Your task to perform on an android device: Search for logitech g502 on walmart, select the first entry, add it to the cart, then select checkout. Image 0: 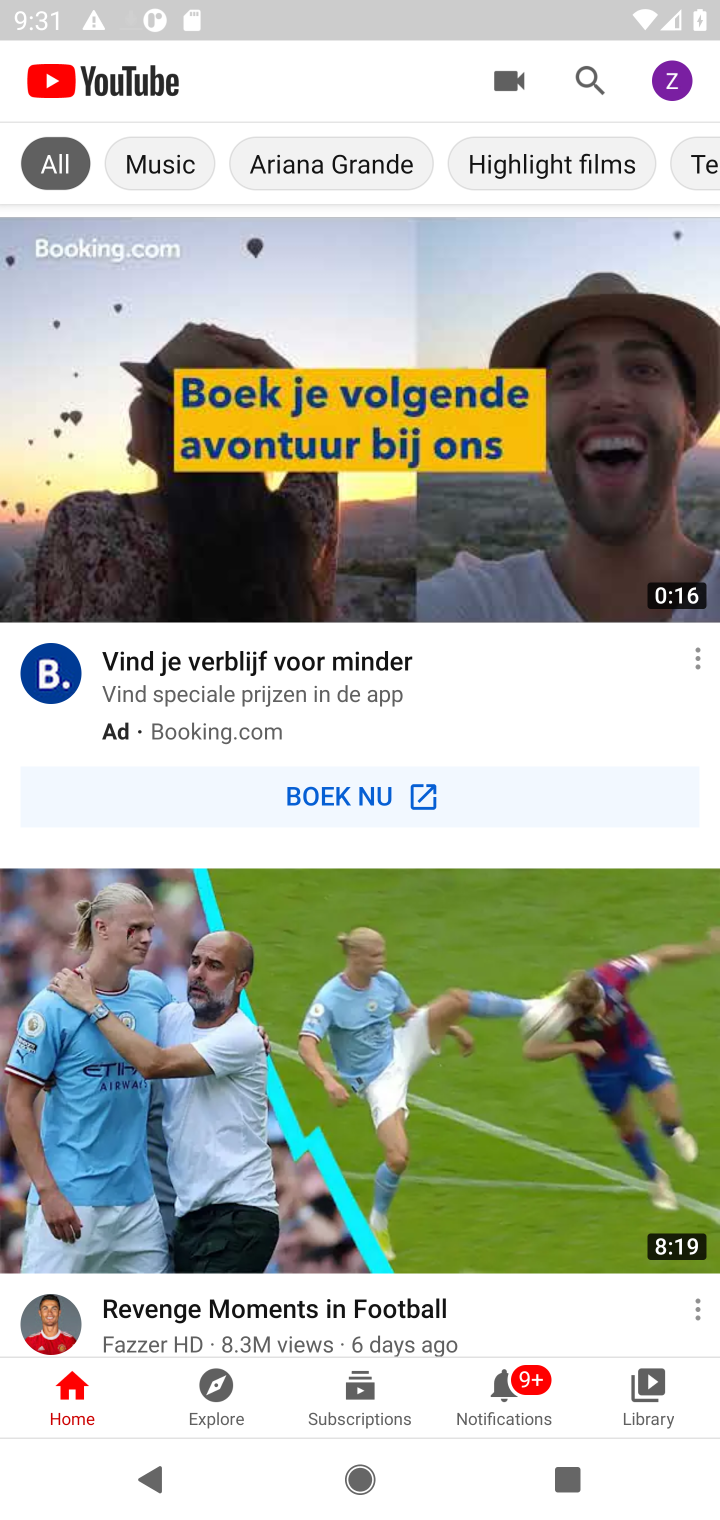
Step 0: press home button
Your task to perform on an android device: Search for logitech g502 on walmart, select the first entry, add it to the cart, then select checkout. Image 1: 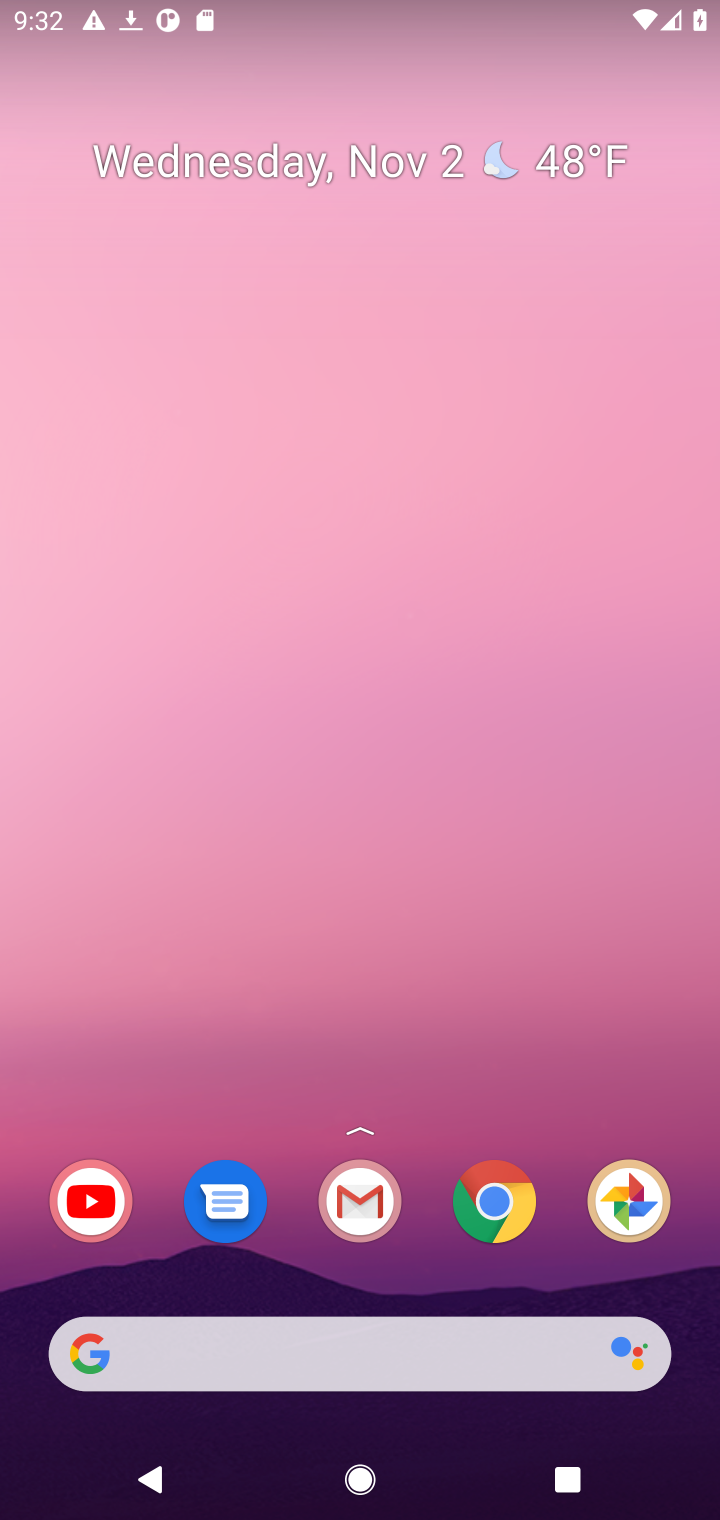
Step 1: drag from (440, 1272) to (415, 335)
Your task to perform on an android device: Search for logitech g502 on walmart, select the first entry, add it to the cart, then select checkout. Image 2: 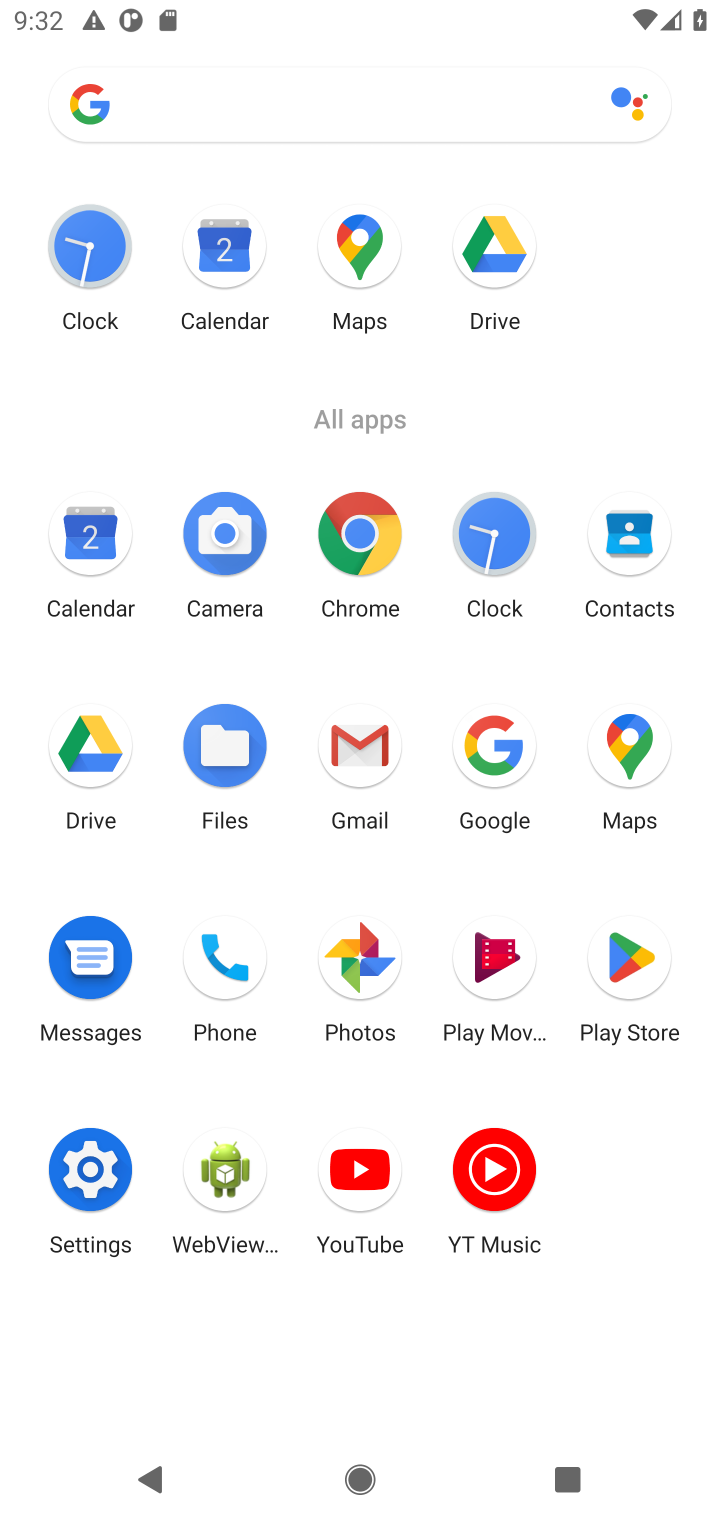
Step 2: click (372, 530)
Your task to perform on an android device: Search for logitech g502 on walmart, select the first entry, add it to the cart, then select checkout. Image 3: 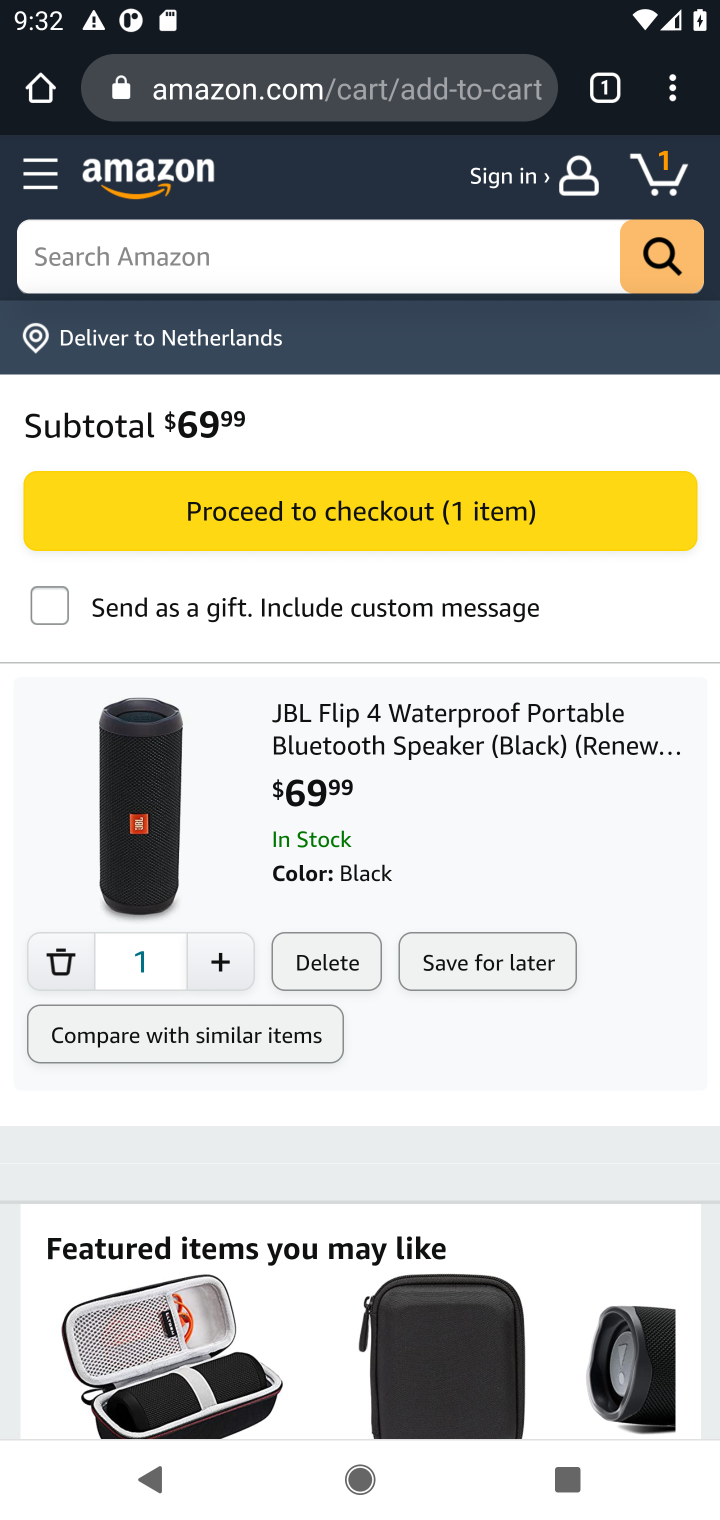
Step 3: click (346, 260)
Your task to perform on an android device: Search for logitech g502 on walmart, select the first entry, add it to the cart, then select checkout. Image 4: 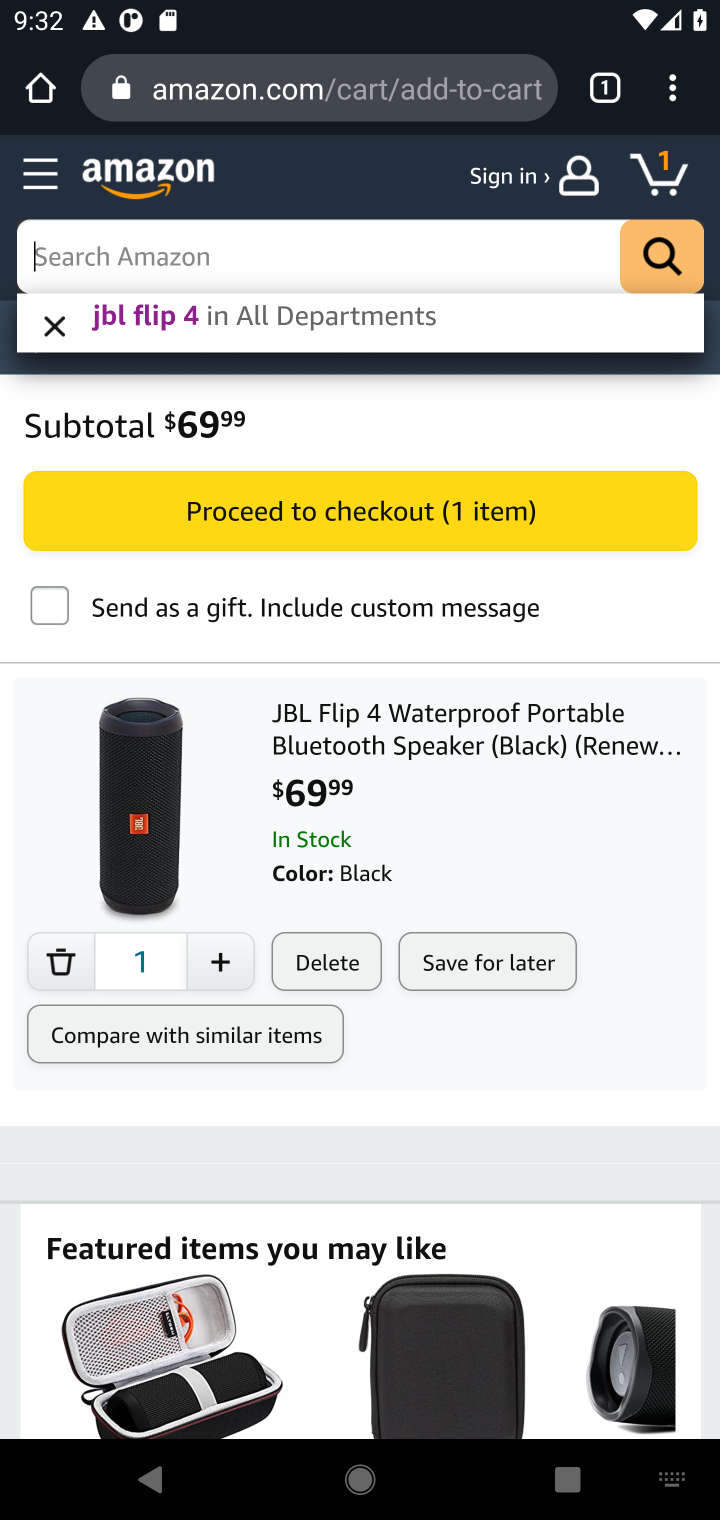
Step 4: type "walmart.com"
Your task to perform on an android device: Search for logitech g502 on walmart, select the first entry, add it to the cart, then select checkout. Image 5: 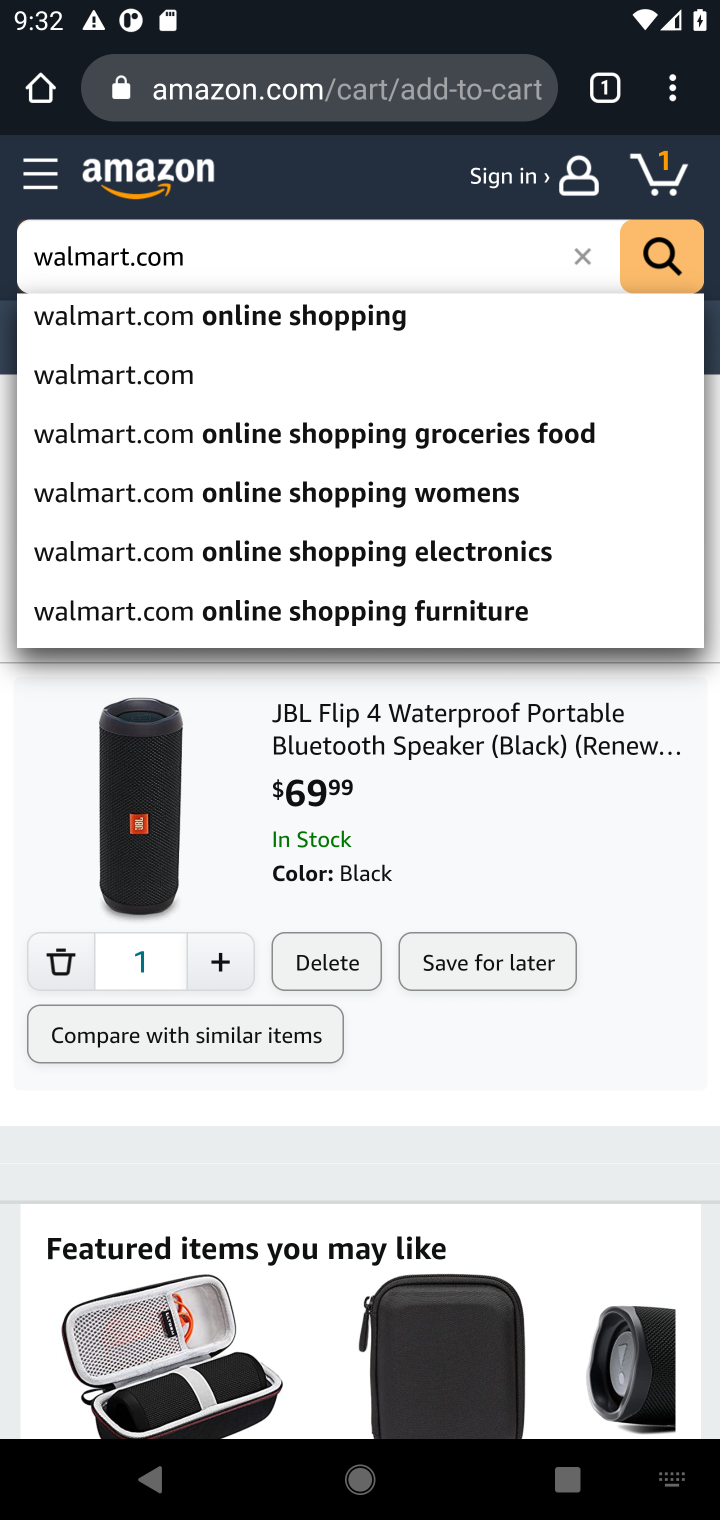
Step 5: click (473, 81)
Your task to perform on an android device: Search for logitech g502 on walmart, select the first entry, add it to the cart, then select checkout. Image 6: 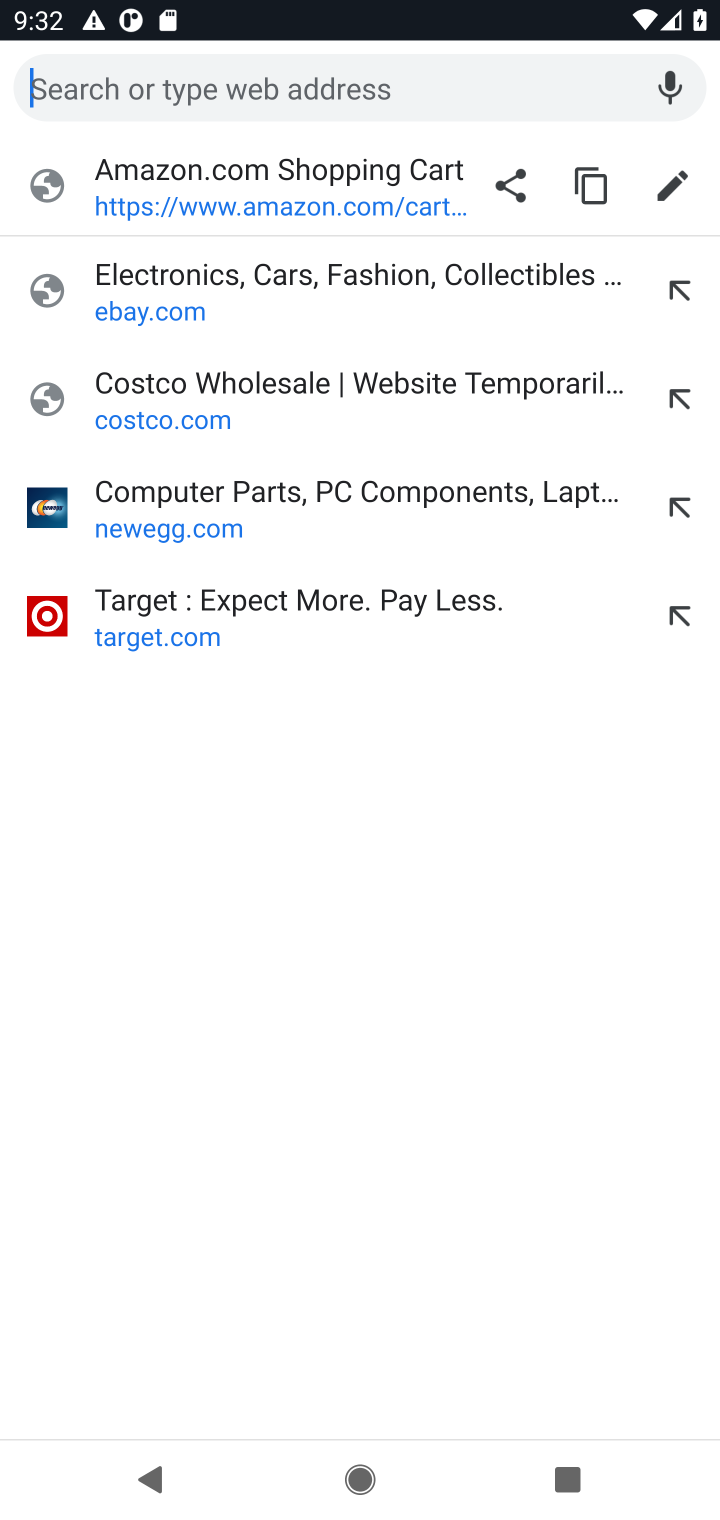
Step 6: type "walmart.com"
Your task to perform on an android device: Search for logitech g502 on walmart, select the first entry, add it to the cart, then select checkout. Image 7: 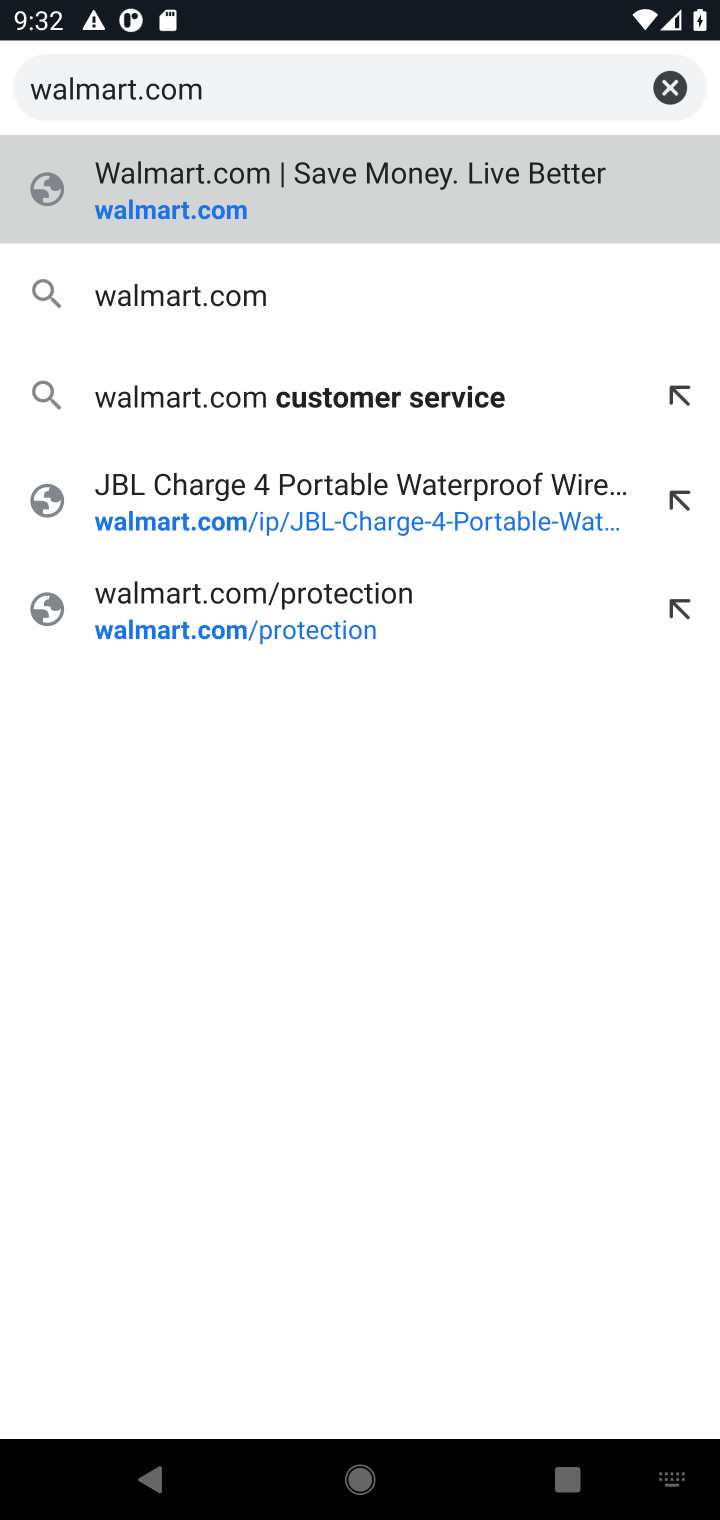
Step 7: press enter
Your task to perform on an android device: Search for logitech g502 on walmart, select the first entry, add it to the cart, then select checkout. Image 8: 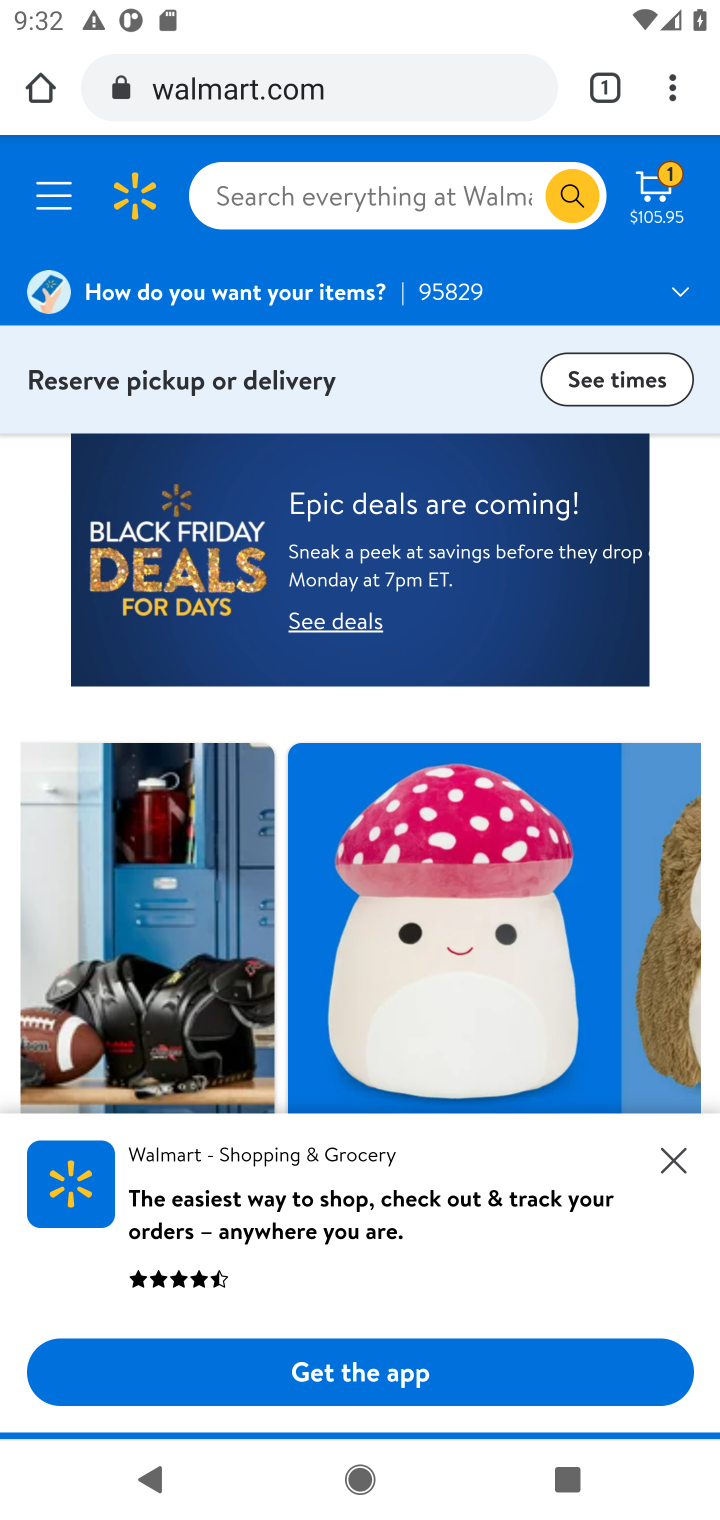
Step 8: click (408, 204)
Your task to perform on an android device: Search for logitech g502 on walmart, select the first entry, add it to the cart, then select checkout. Image 9: 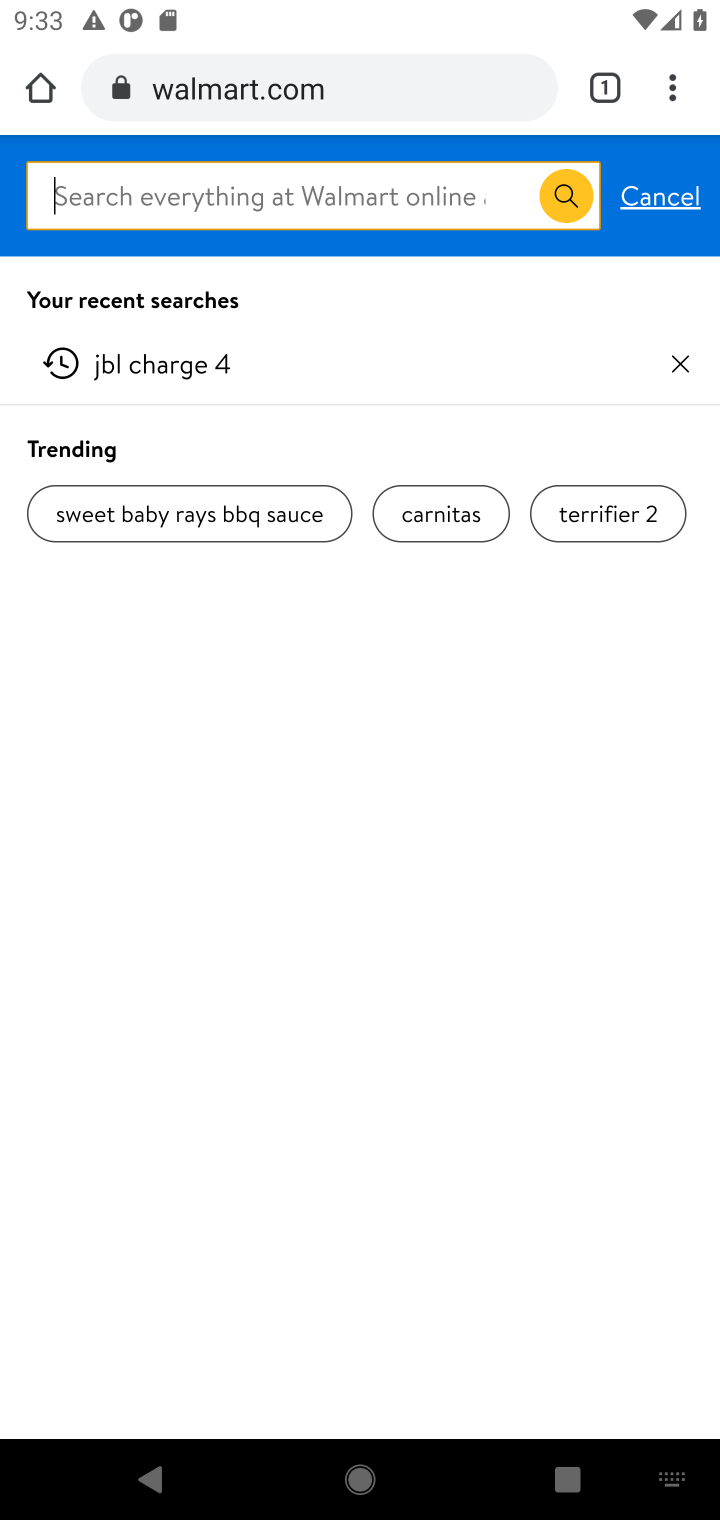
Step 9: type "logitech g502"
Your task to perform on an android device: Search for logitech g502 on walmart, select the first entry, add it to the cart, then select checkout. Image 10: 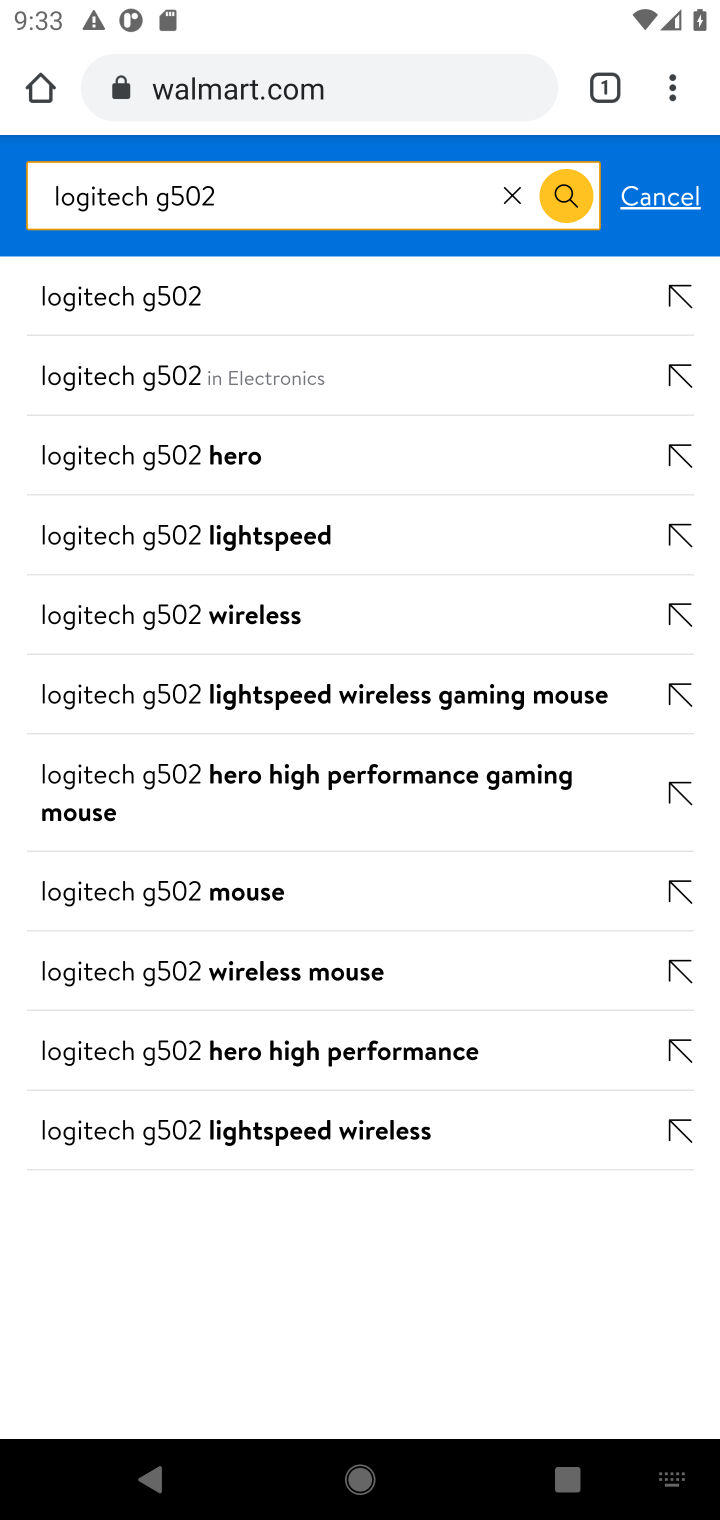
Step 10: press enter
Your task to perform on an android device: Search for logitech g502 on walmart, select the first entry, add it to the cart, then select checkout. Image 11: 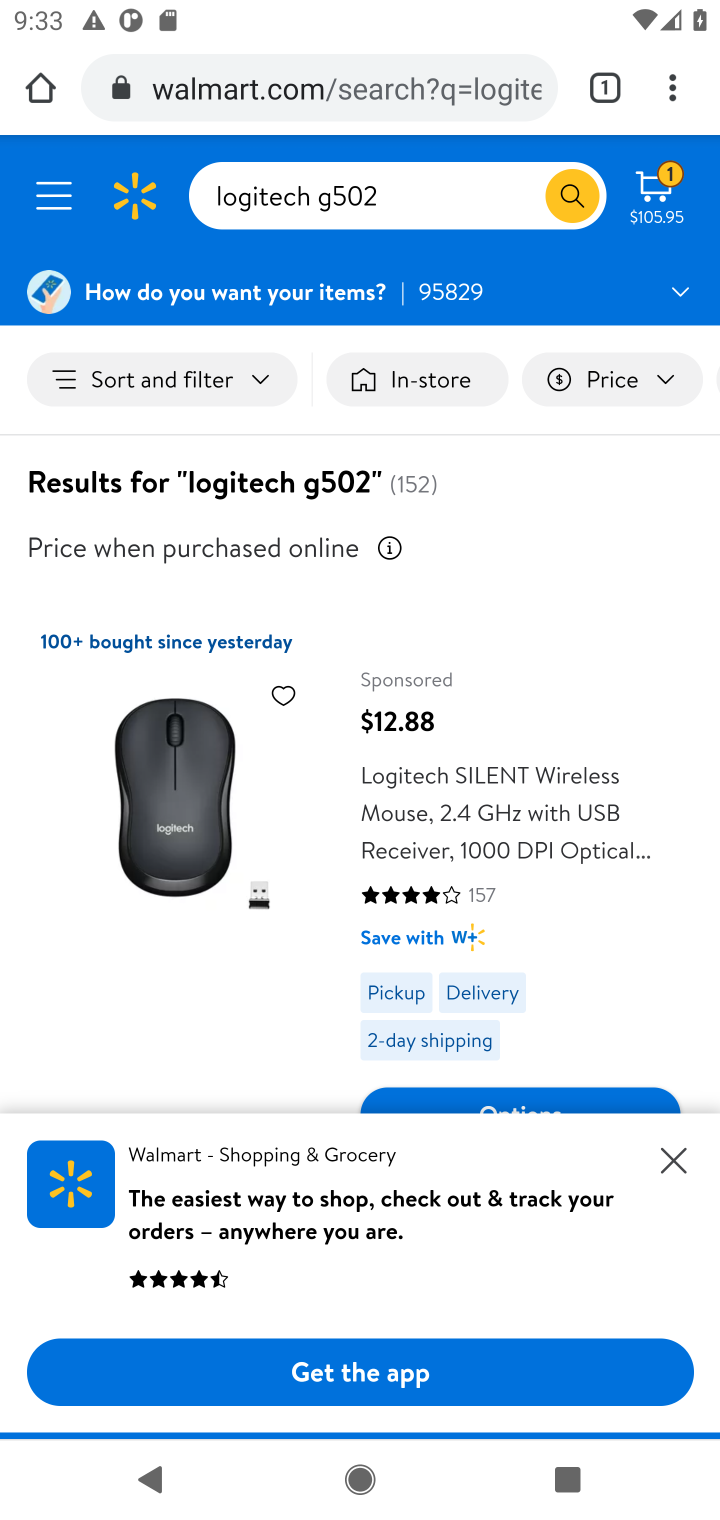
Step 11: drag from (444, 999) to (425, 244)
Your task to perform on an android device: Search for logitech g502 on walmart, select the first entry, add it to the cart, then select checkout. Image 12: 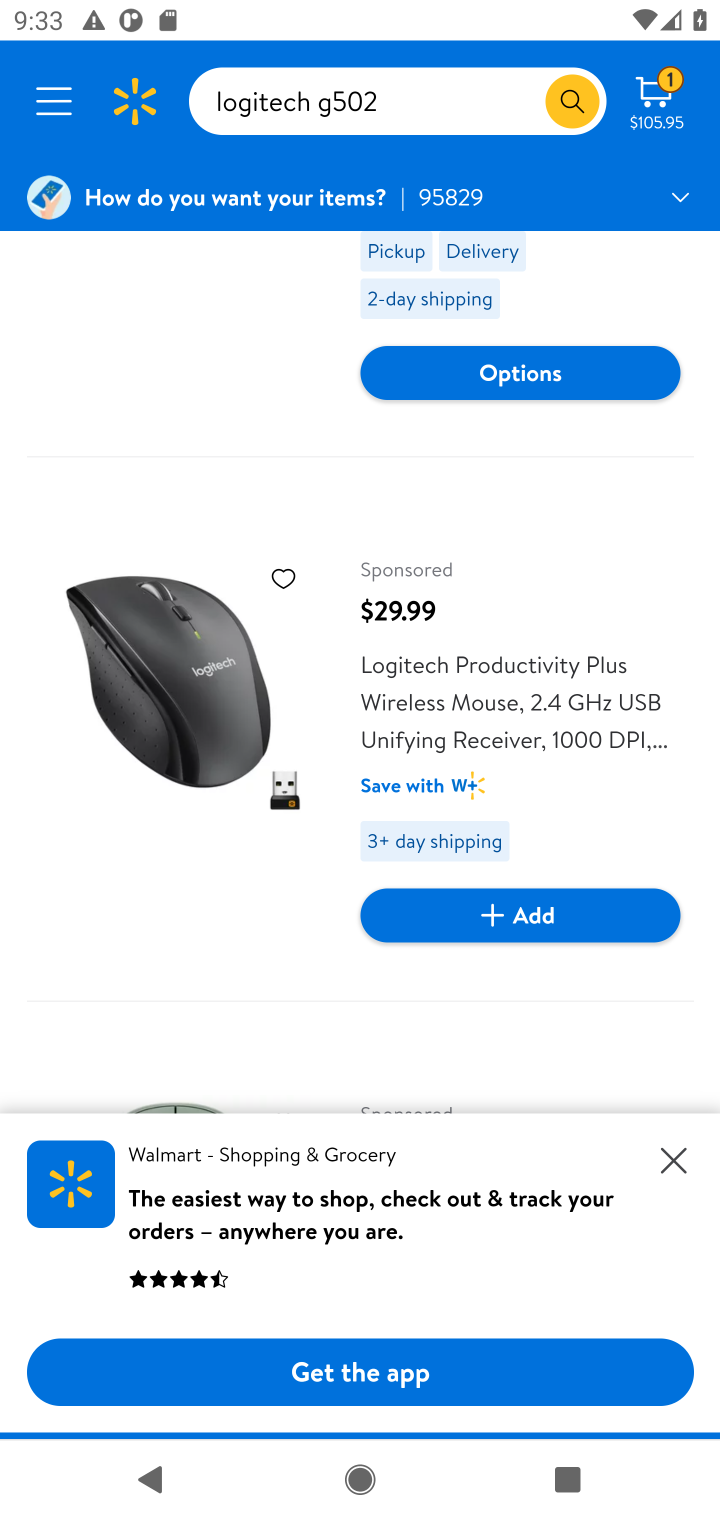
Step 12: drag from (449, 1024) to (359, 429)
Your task to perform on an android device: Search for logitech g502 on walmart, select the first entry, add it to the cart, then select checkout. Image 13: 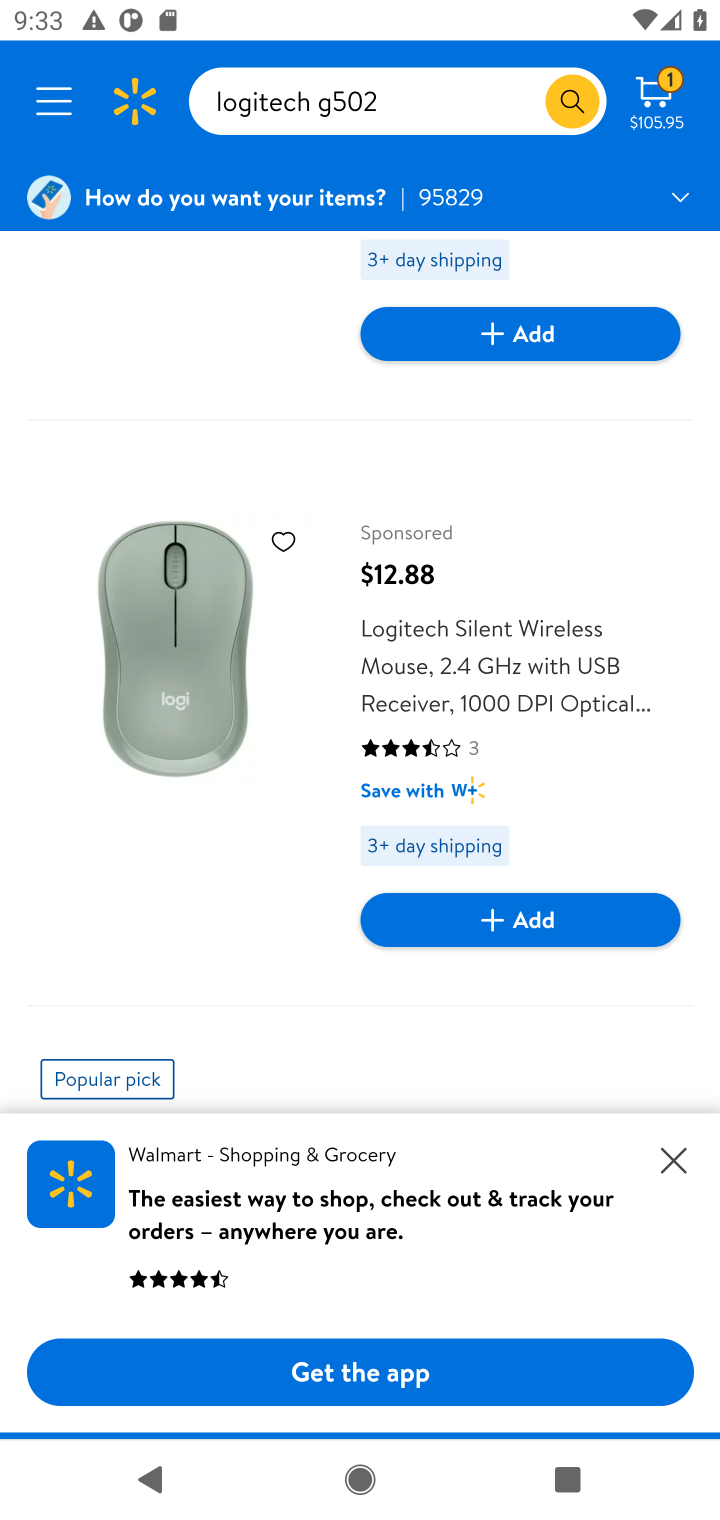
Step 13: drag from (440, 1039) to (499, 430)
Your task to perform on an android device: Search for logitech g502 on walmart, select the first entry, add it to the cart, then select checkout. Image 14: 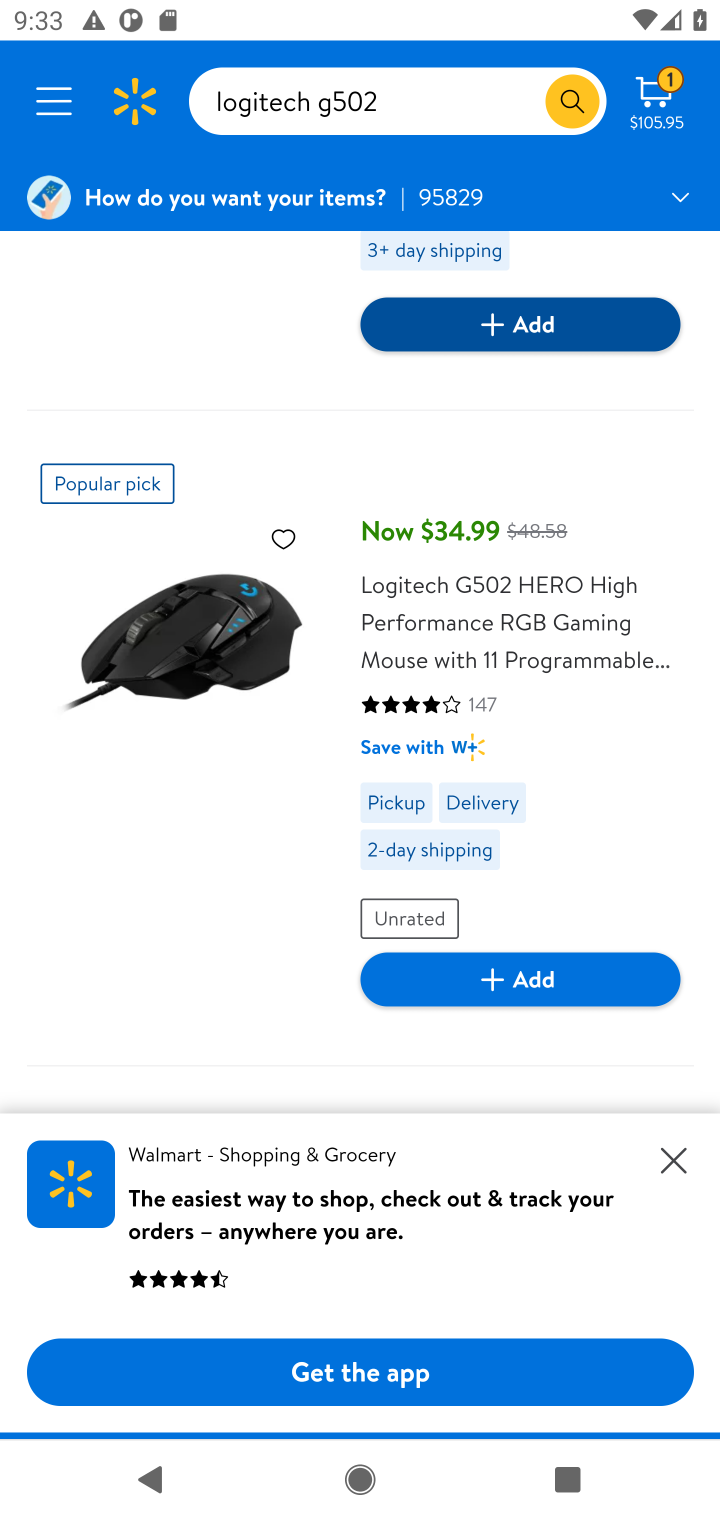
Step 14: click (550, 975)
Your task to perform on an android device: Search for logitech g502 on walmart, select the first entry, add it to the cart, then select checkout. Image 15: 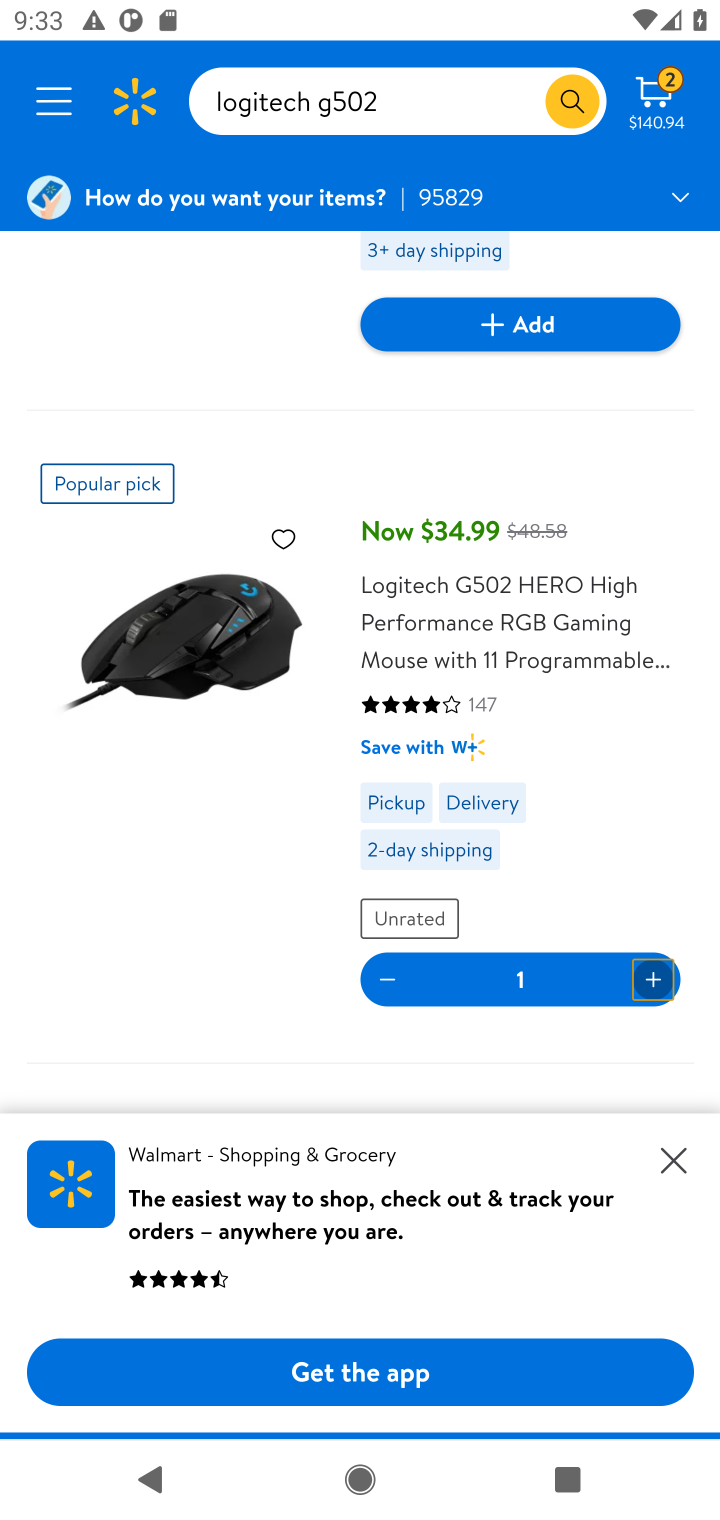
Step 15: click (439, 634)
Your task to perform on an android device: Search for logitech g502 on walmart, select the first entry, add it to the cart, then select checkout. Image 16: 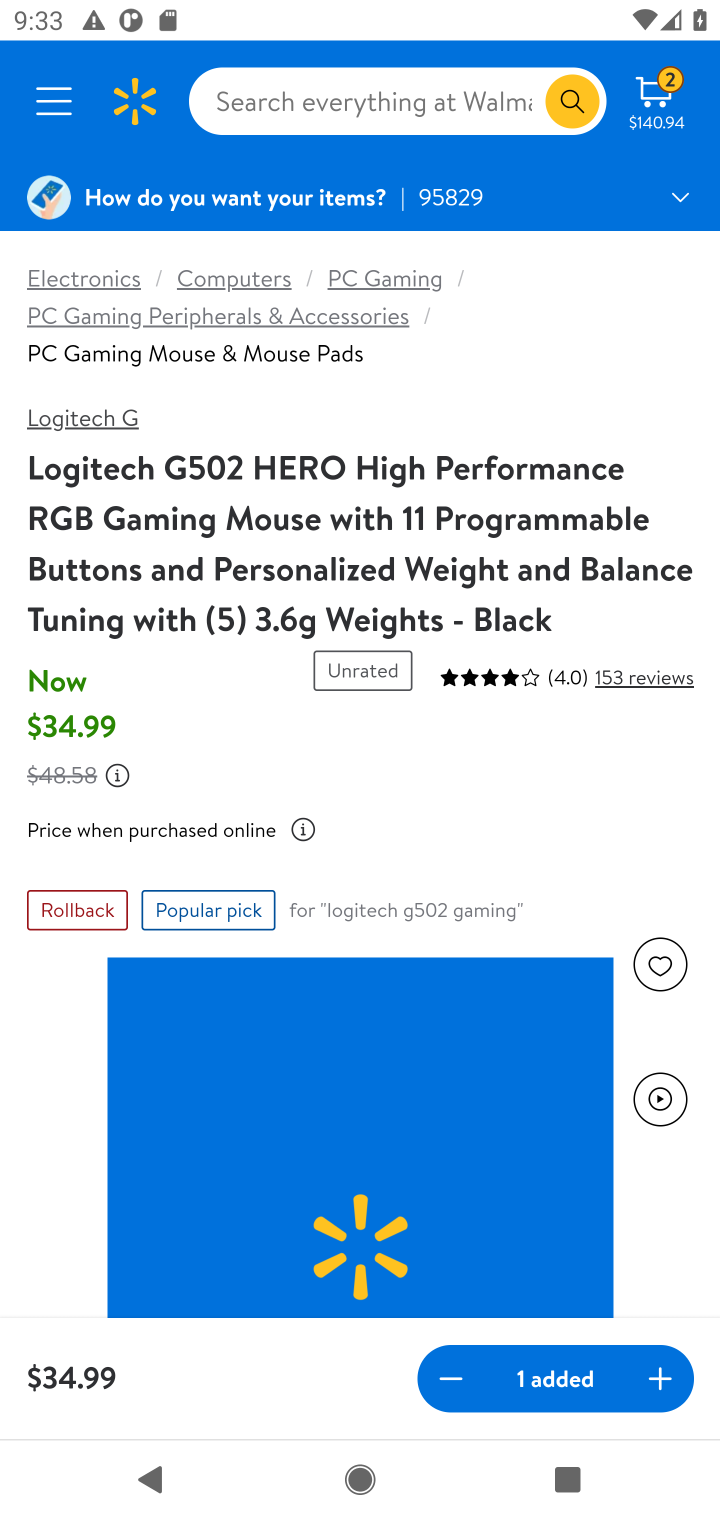
Step 16: click (667, 94)
Your task to perform on an android device: Search for logitech g502 on walmart, select the first entry, add it to the cart, then select checkout. Image 17: 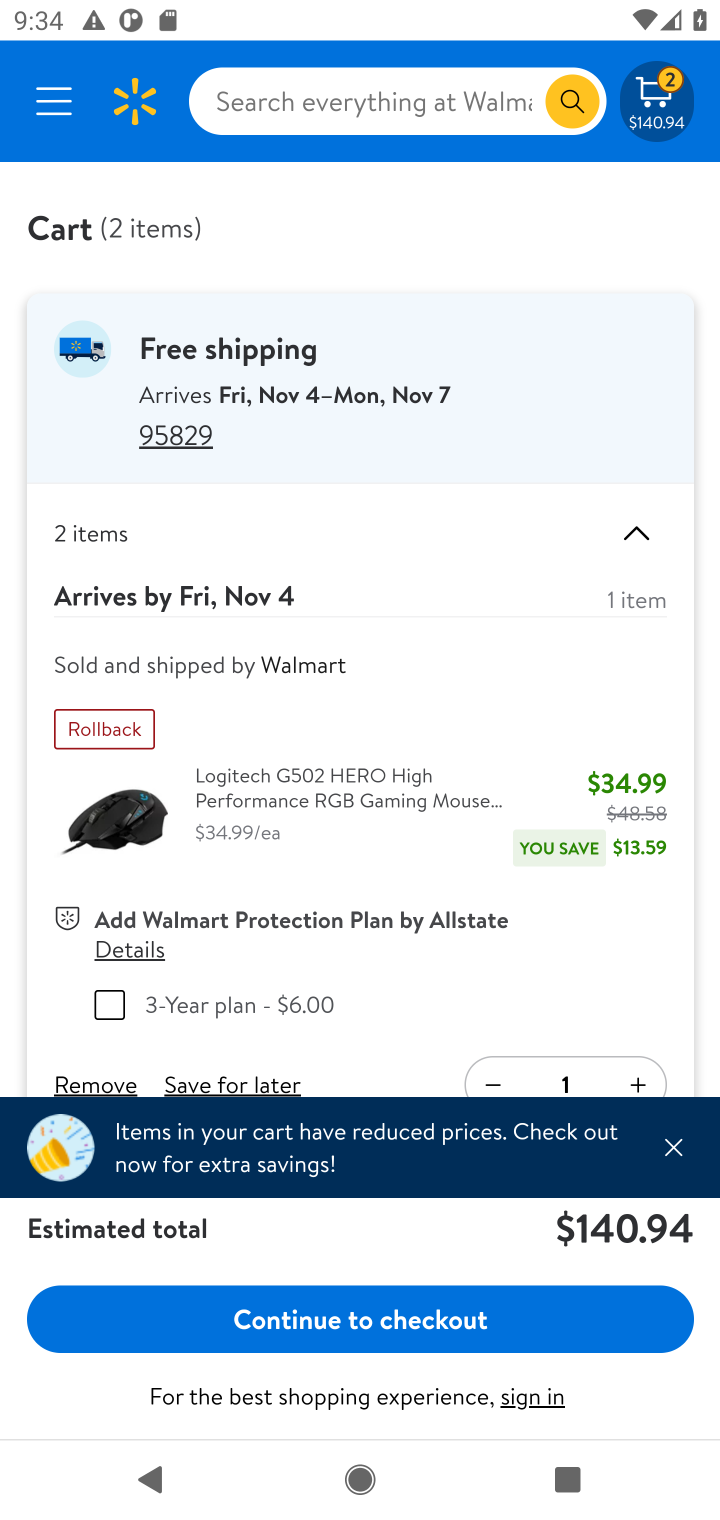
Step 17: click (396, 1325)
Your task to perform on an android device: Search for logitech g502 on walmart, select the first entry, add it to the cart, then select checkout. Image 18: 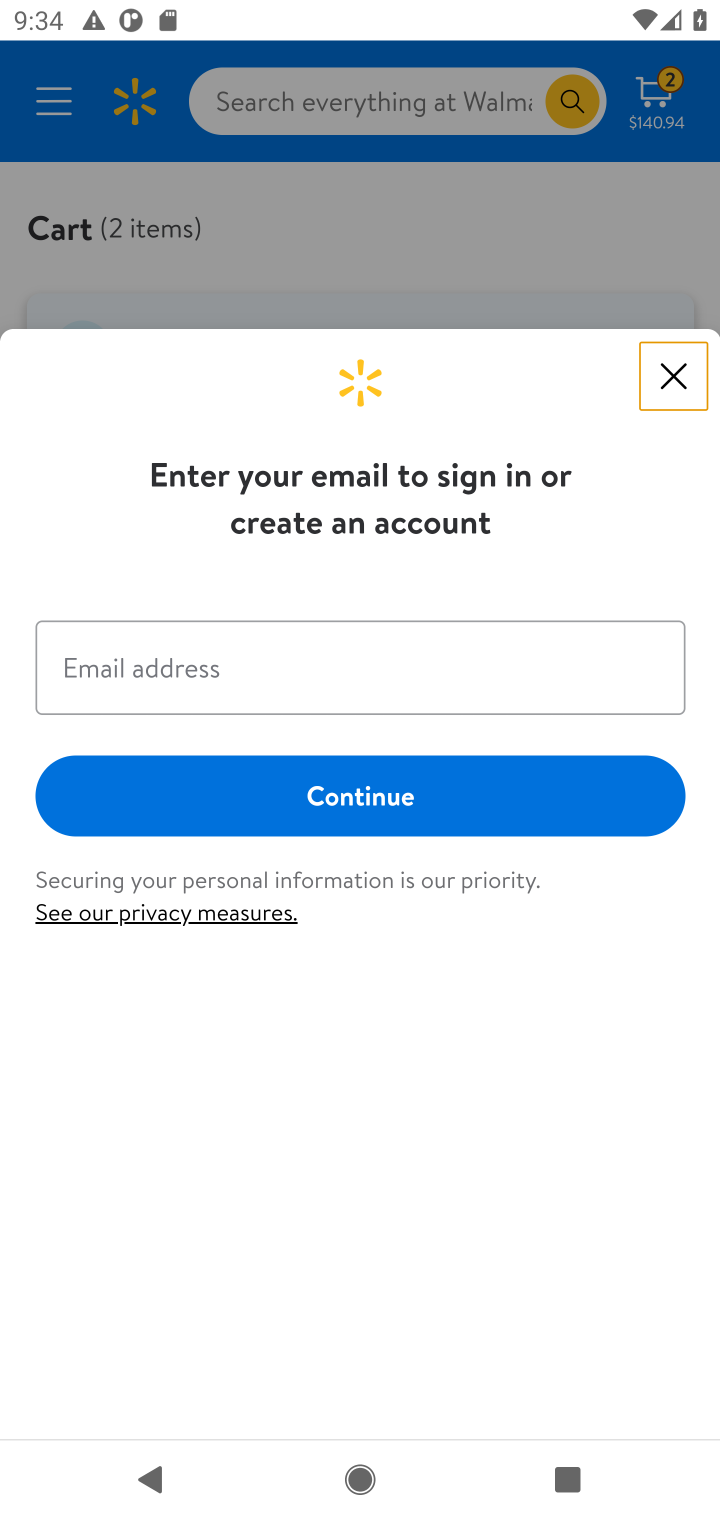
Step 18: task complete